Your task to perform on an android device: Open battery settings Image 0: 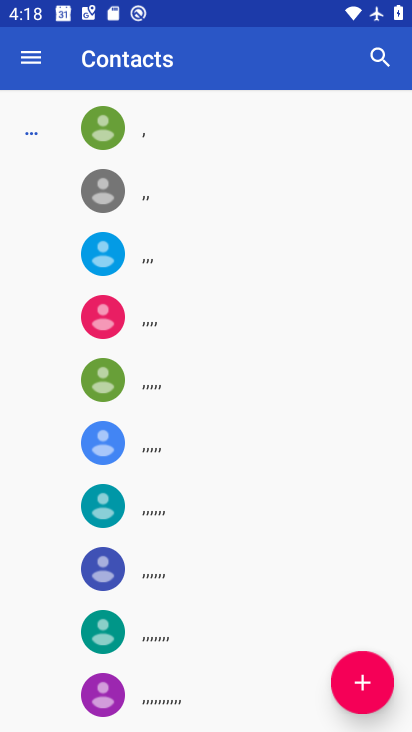
Step 0: press home button
Your task to perform on an android device: Open battery settings Image 1: 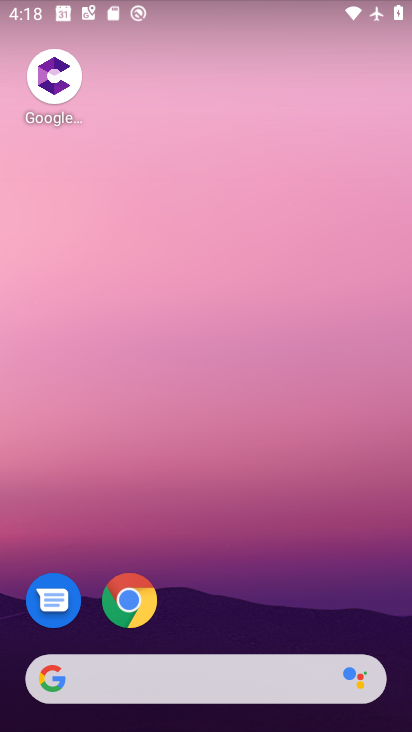
Step 1: drag from (321, 552) to (306, 248)
Your task to perform on an android device: Open battery settings Image 2: 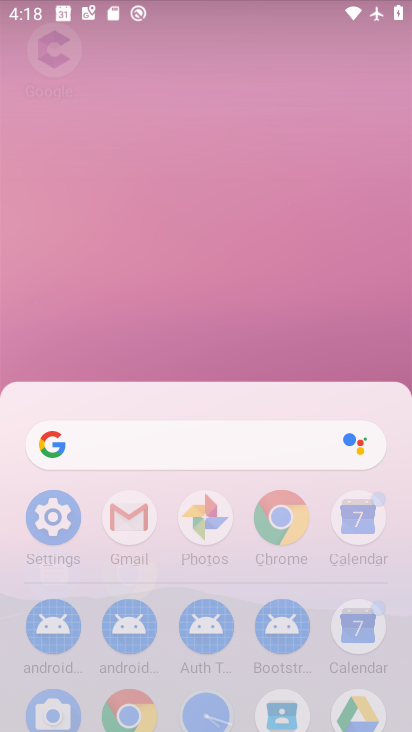
Step 2: click (290, 226)
Your task to perform on an android device: Open battery settings Image 3: 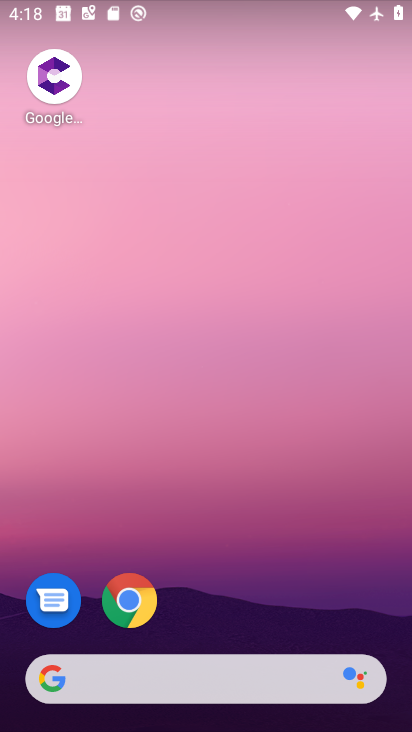
Step 3: drag from (321, 582) to (118, 159)
Your task to perform on an android device: Open battery settings Image 4: 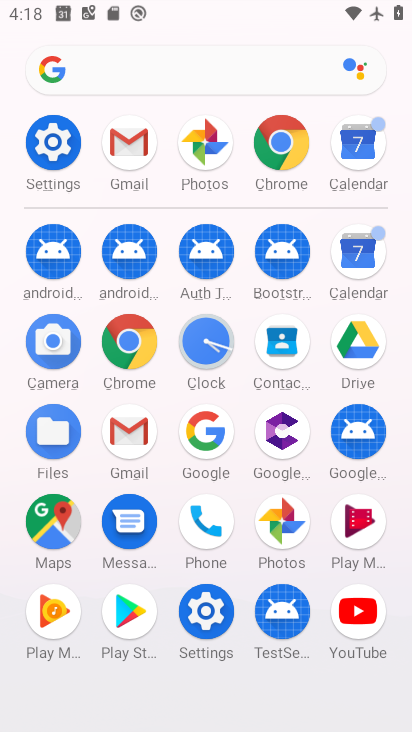
Step 4: click (63, 155)
Your task to perform on an android device: Open battery settings Image 5: 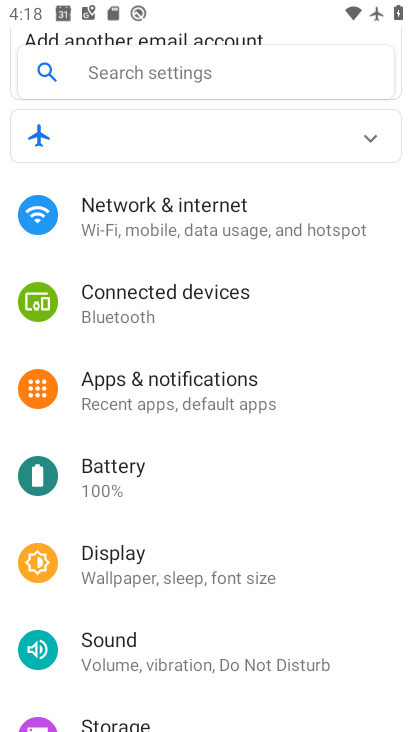
Step 5: drag from (232, 516) to (217, 154)
Your task to perform on an android device: Open battery settings Image 6: 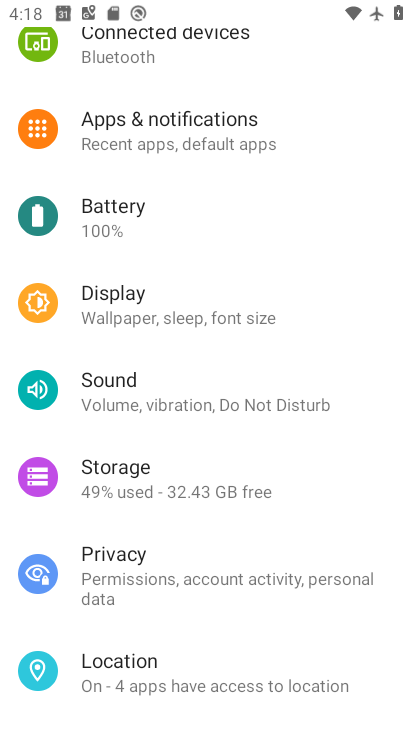
Step 6: drag from (145, 548) to (134, 247)
Your task to perform on an android device: Open battery settings Image 7: 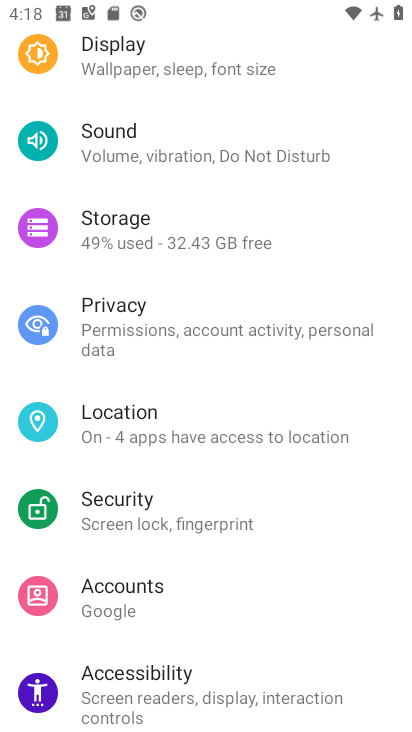
Step 7: drag from (144, 145) to (185, 453)
Your task to perform on an android device: Open battery settings Image 8: 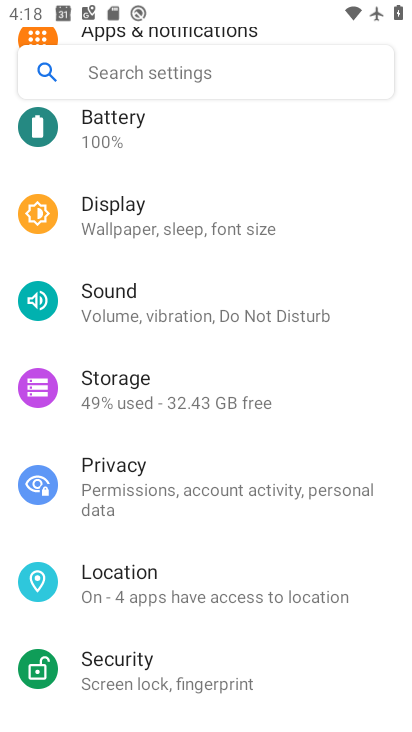
Step 8: click (111, 144)
Your task to perform on an android device: Open battery settings Image 9: 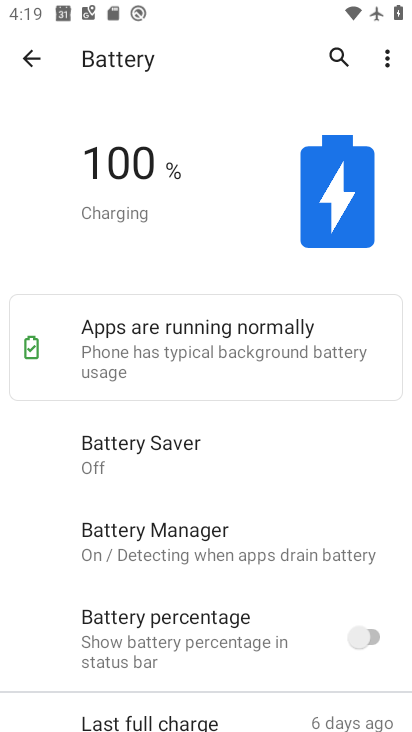
Step 9: task complete